Your task to perform on an android device: turn on airplane mode Image 0: 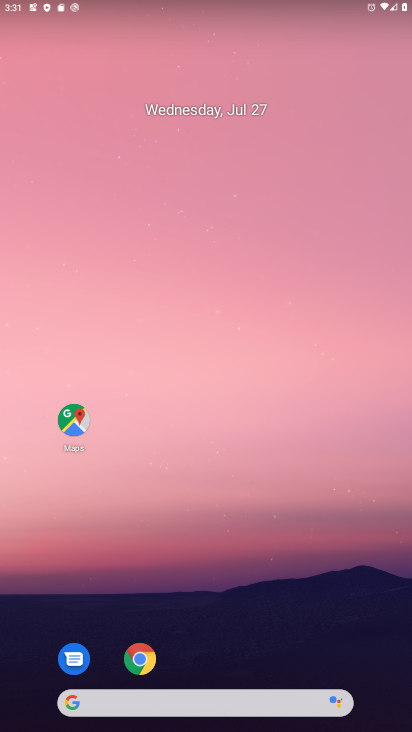
Step 0: drag from (279, 643) to (273, 79)
Your task to perform on an android device: turn on airplane mode Image 1: 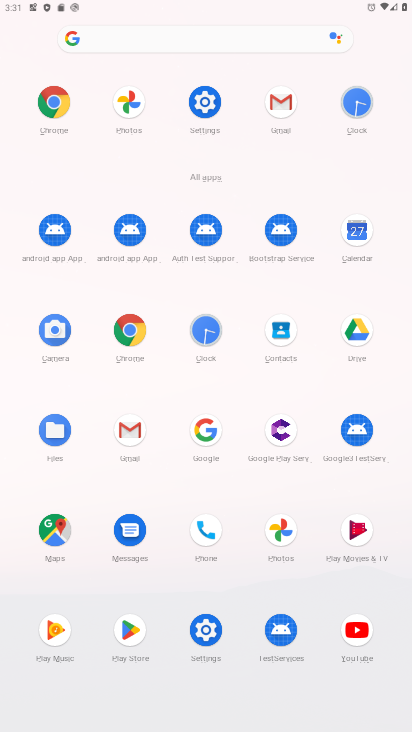
Step 1: click (203, 112)
Your task to perform on an android device: turn on airplane mode Image 2: 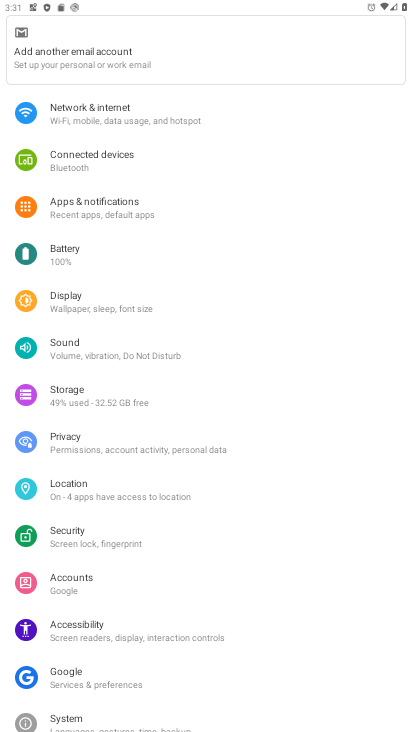
Step 2: click (181, 121)
Your task to perform on an android device: turn on airplane mode Image 3: 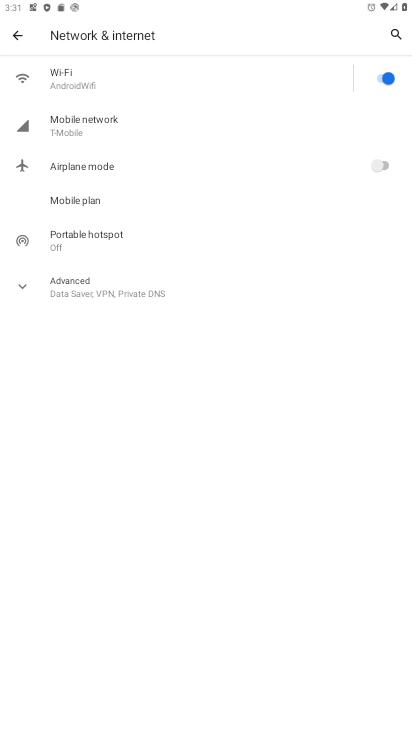
Step 3: click (386, 160)
Your task to perform on an android device: turn on airplane mode Image 4: 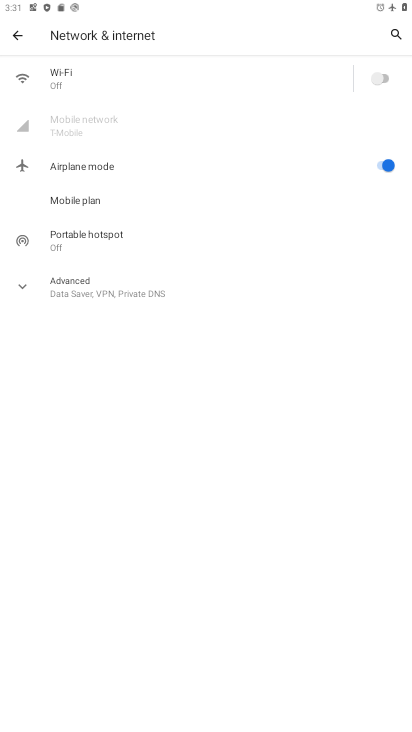
Step 4: task complete